Your task to perform on an android device: change notification settings in the gmail app Image 0: 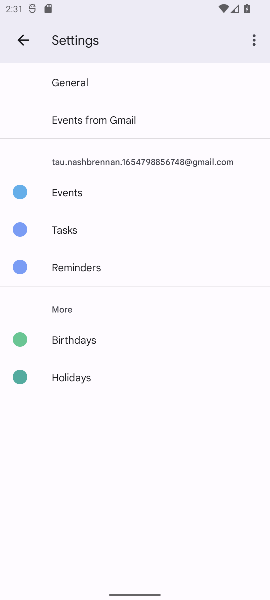
Step 0: task complete